Your task to perform on an android device: Open the calendar app, open the side menu, and click the "Day" option Image 0: 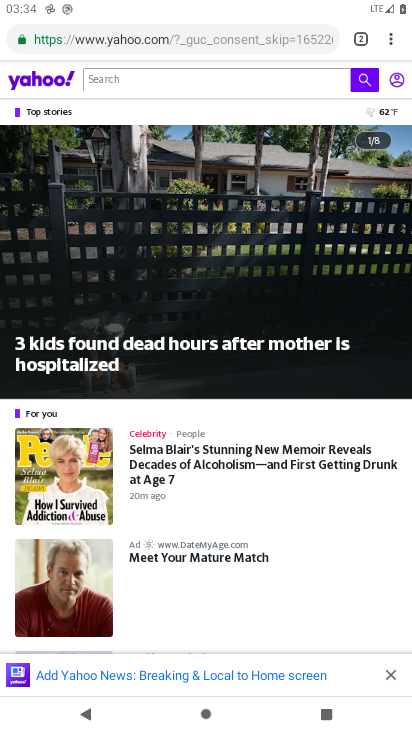
Step 0: press home button
Your task to perform on an android device: Open the calendar app, open the side menu, and click the "Day" option Image 1: 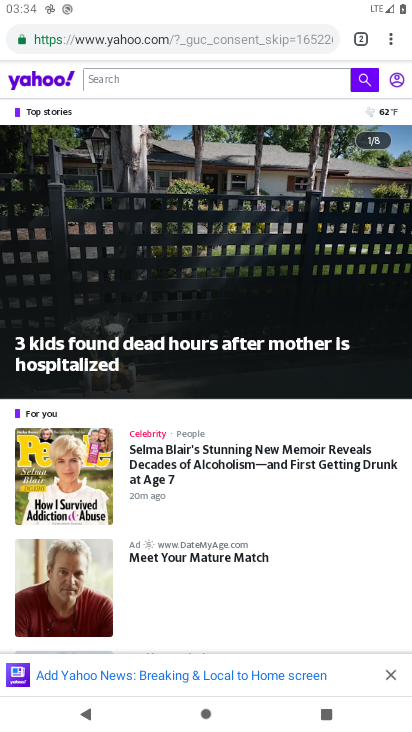
Step 1: press home button
Your task to perform on an android device: Open the calendar app, open the side menu, and click the "Day" option Image 2: 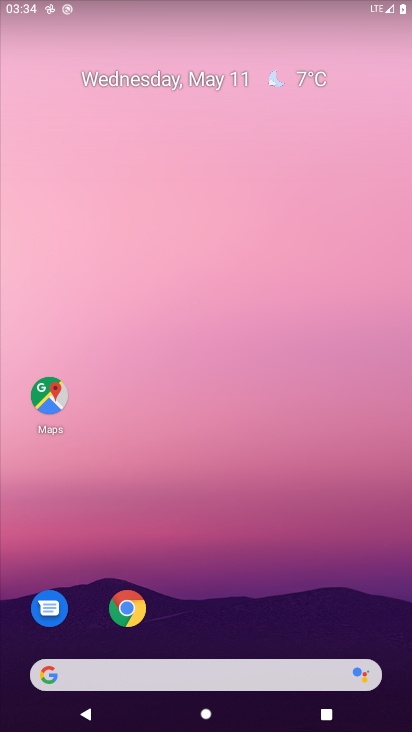
Step 2: drag from (196, 635) to (214, 90)
Your task to perform on an android device: Open the calendar app, open the side menu, and click the "Day" option Image 3: 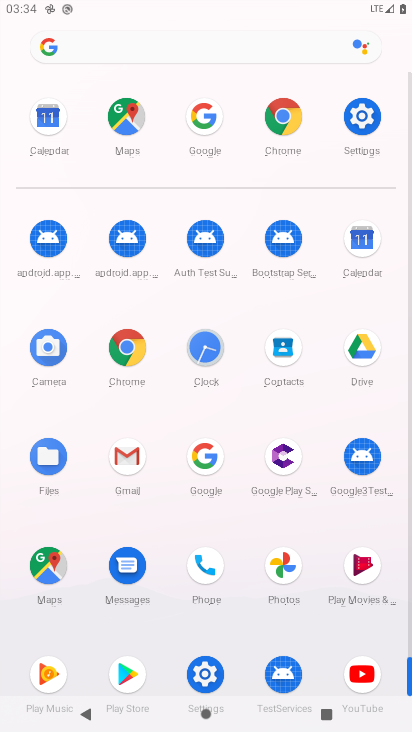
Step 3: click (366, 243)
Your task to perform on an android device: Open the calendar app, open the side menu, and click the "Day" option Image 4: 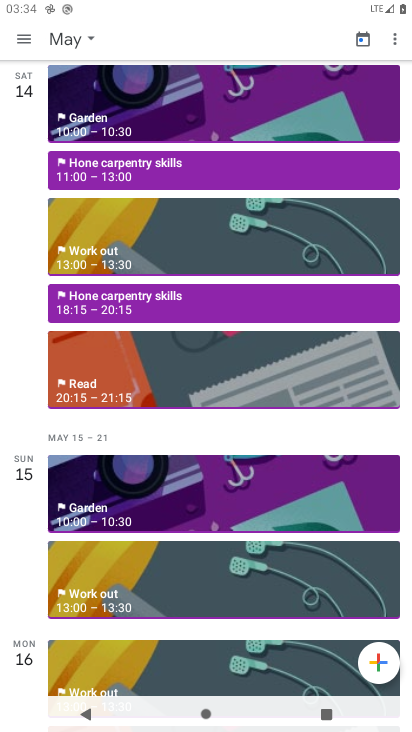
Step 4: click (18, 37)
Your task to perform on an android device: Open the calendar app, open the side menu, and click the "Day" option Image 5: 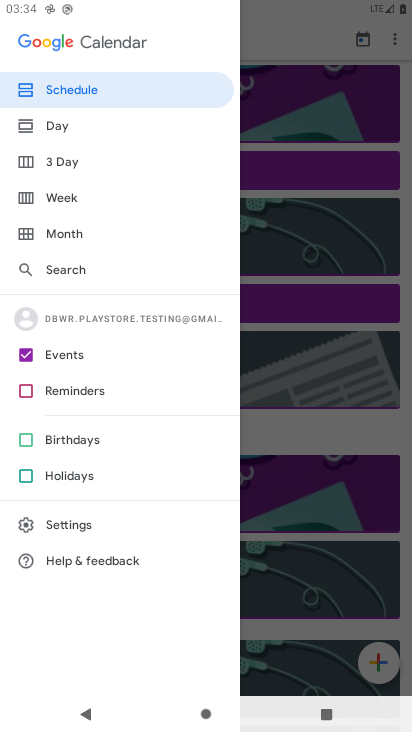
Step 5: click (70, 117)
Your task to perform on an android device: Open the calendar app, open the side menu, and click the "Day" option Image 6: 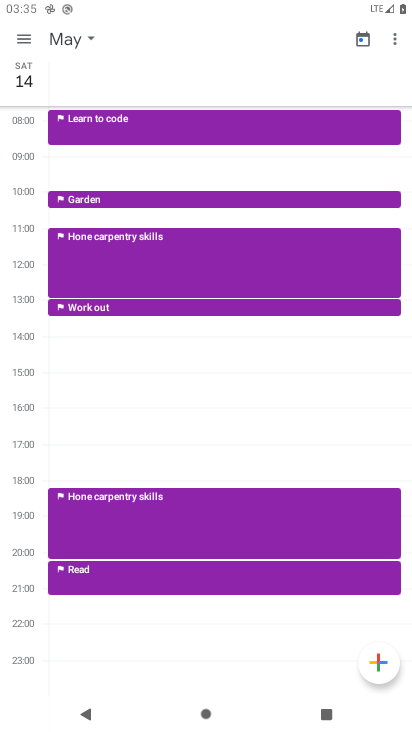
Step 6: task complete